Your task to perform on an android device: find snoozed emails in the gmail app Image 0: 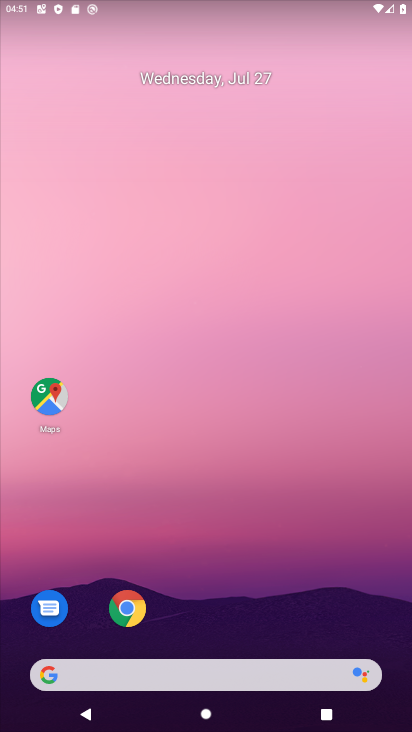
Step 0: press home button
Your task to perform on an android device: find snoozed emails in the gmail app Image 1: 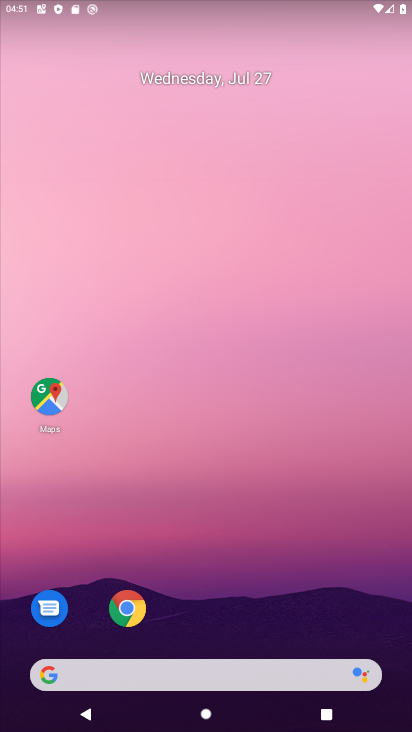
Step 1: drag from (309, 592) to (128, 27)
Your task to perform on an android device: find snoozed emails in the gmail app Image 2: 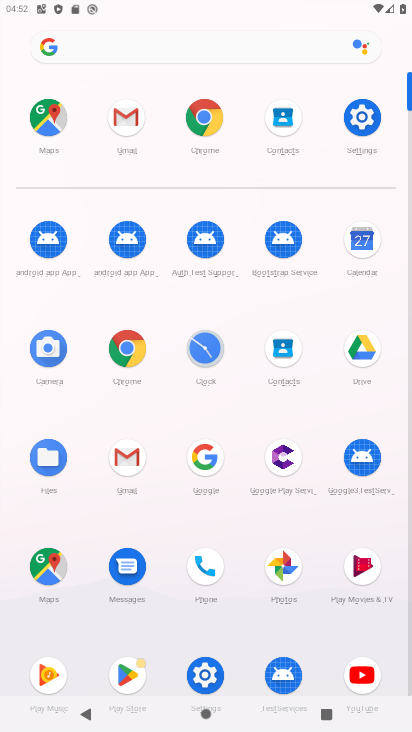
Step 2: click (130, 105)
Your task to perform on an android device: find snoozed emails in the gmail app Image 3: 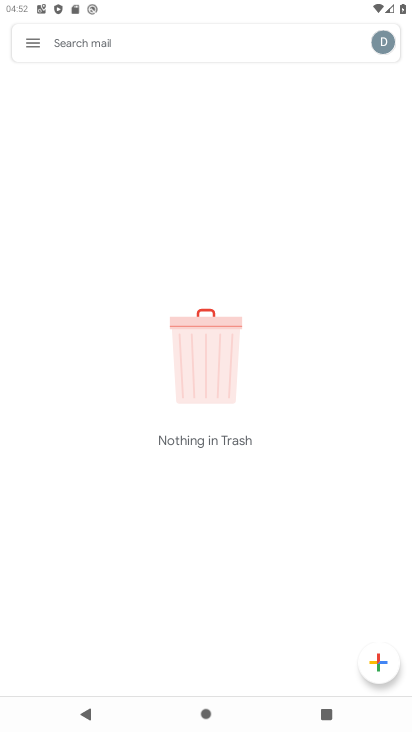
Step 3: click (34, 38)
Your task to perform on an android device: find snoozed emails in the gmail app Image 4: 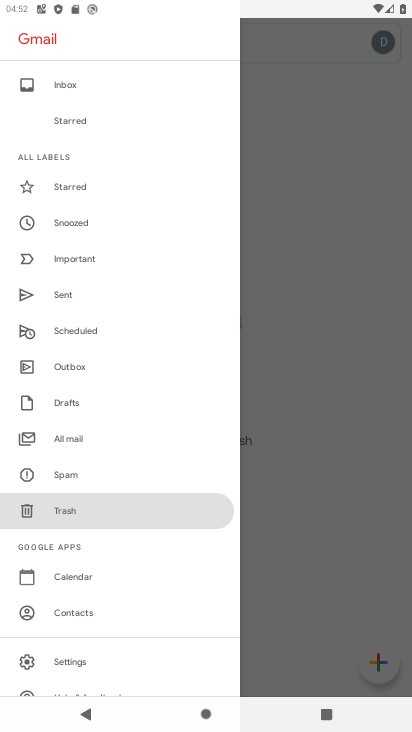
Step 4: click (70, 223)
Your task to perform on an android device: find snoozed emails in the gmail app Image 5: 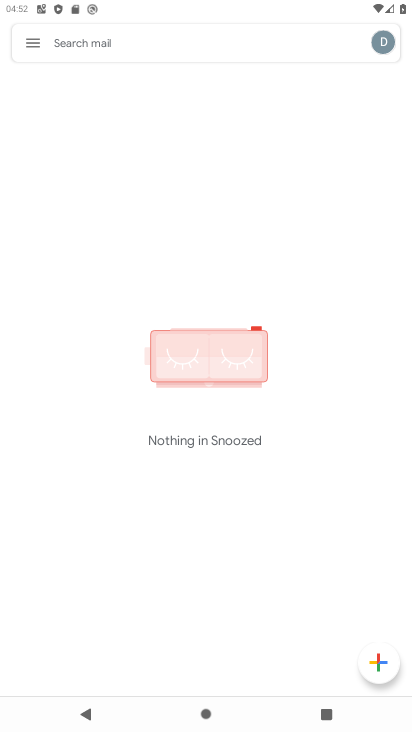
Step 5: task complete